Your task to perform on an android device: turn off notifications settings in the gmail app Image 0: 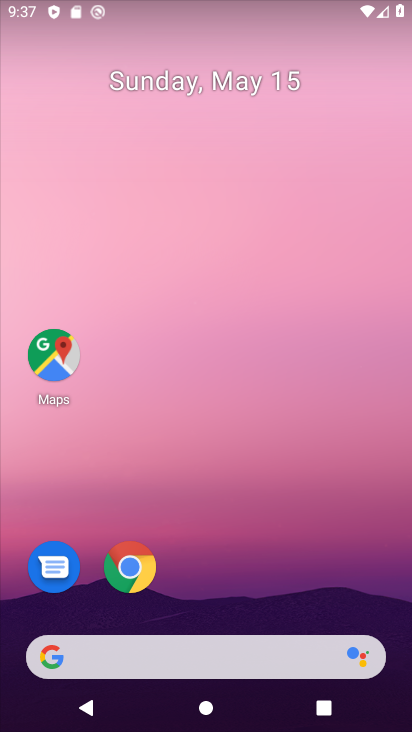
Step 0: drag from (197, 567) to (137, 159)
Your task to perform on an android device: turn off notifications settings in the gmail app Image 1: 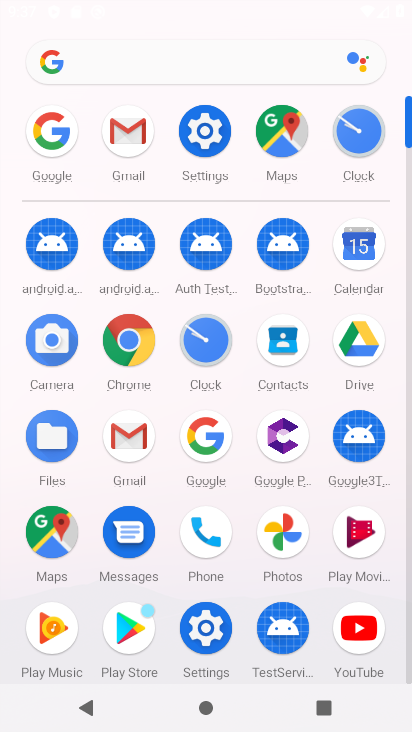
Step 1: click (129, 126)
Your task to perform on an android device: turn off notifications settings in the gmail app Image 2: 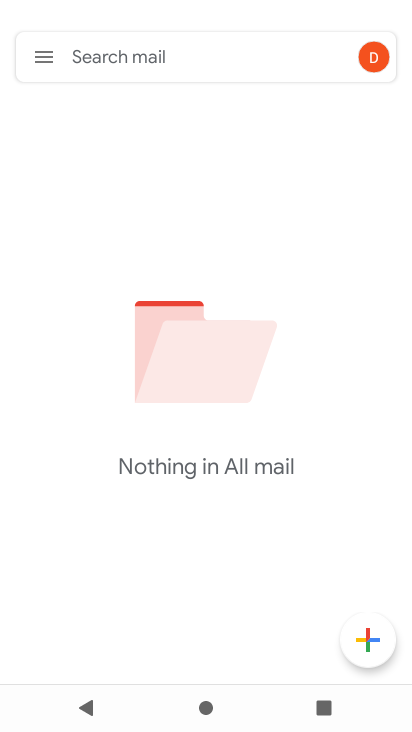
Step 2: click (40, 50)
Your task to perform on an android device: turn off notifications settings in the gmail app Image 3: 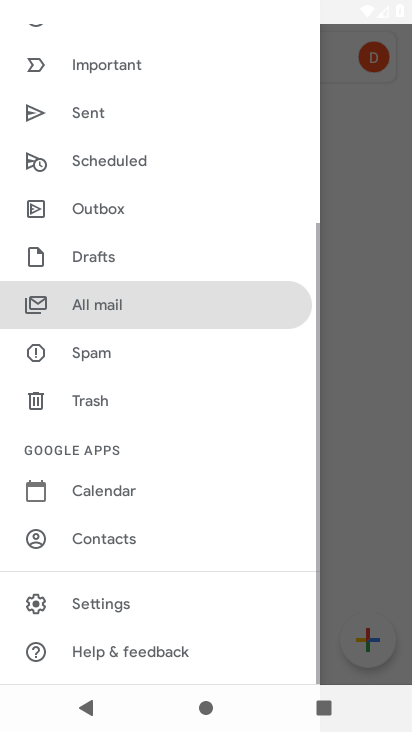
Step 3: click (119, 601)
Your task to perform on an android device: turn off notifications settings in the gmail app Image 4: 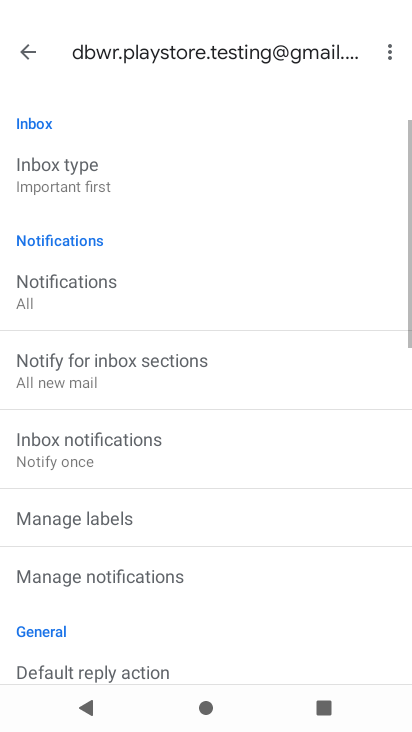
Step 4: click (64, 290)
Your task to perform on an android device: turn off notifications settings in the gmail app Image 5: 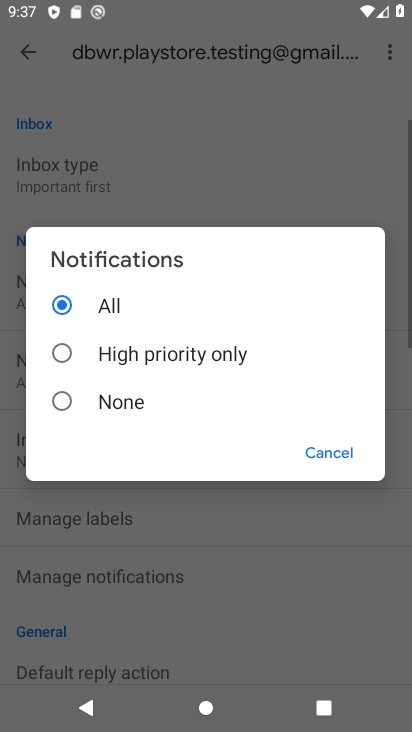
Step 5: click (64, 399)
Your task to perform on an android device: turn off notifications settings in the gmail app Image 6: 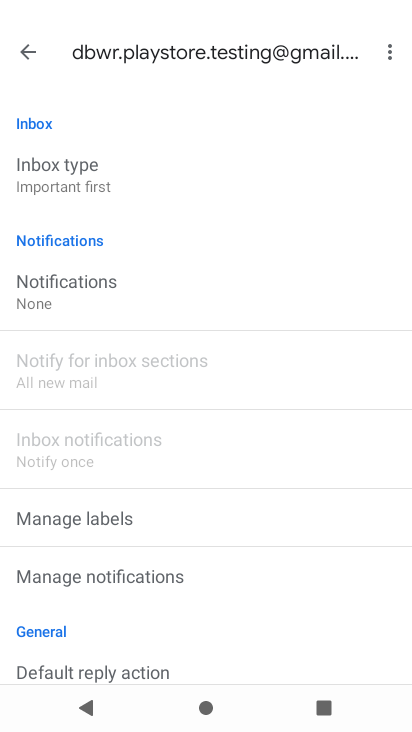
Step 6: task complete